Your task to perform on an android device: install app "ColorNote Notepad Notes" Image 0: 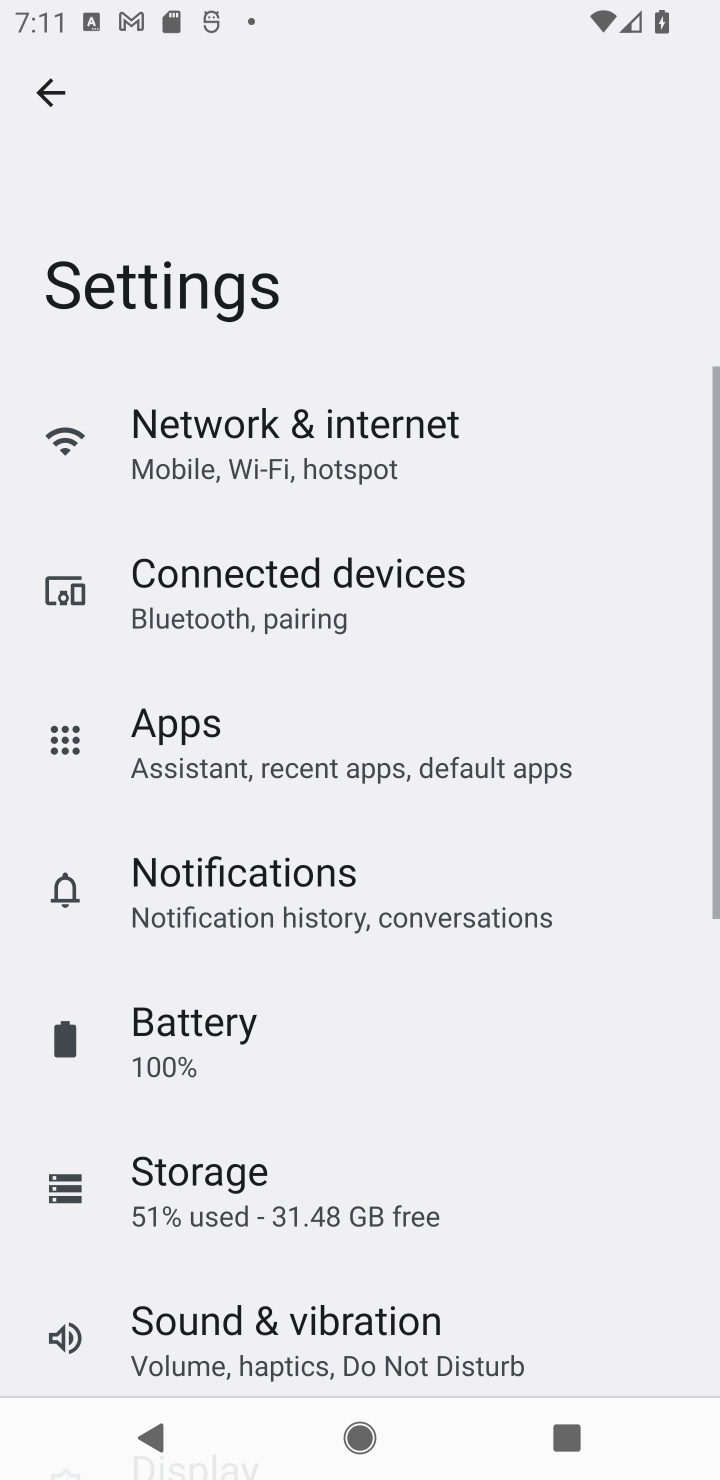
Step 0: press home button
Your task to perform on an android device: install app "ColorNote Notepad Notes" Image 1: 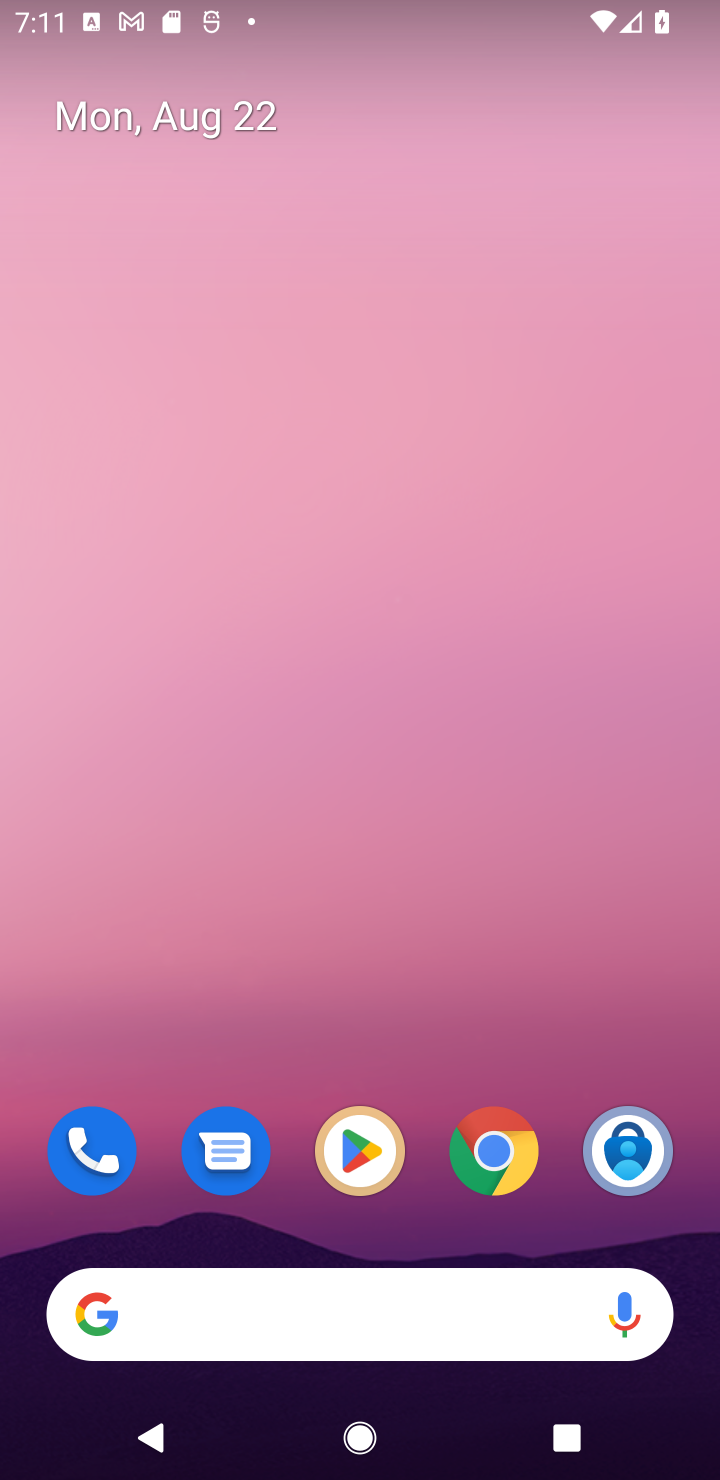
Step 1: click (364, 1147)
Your task to perform on an android device: install app "ColorNote Notepad Notes" Image 2: 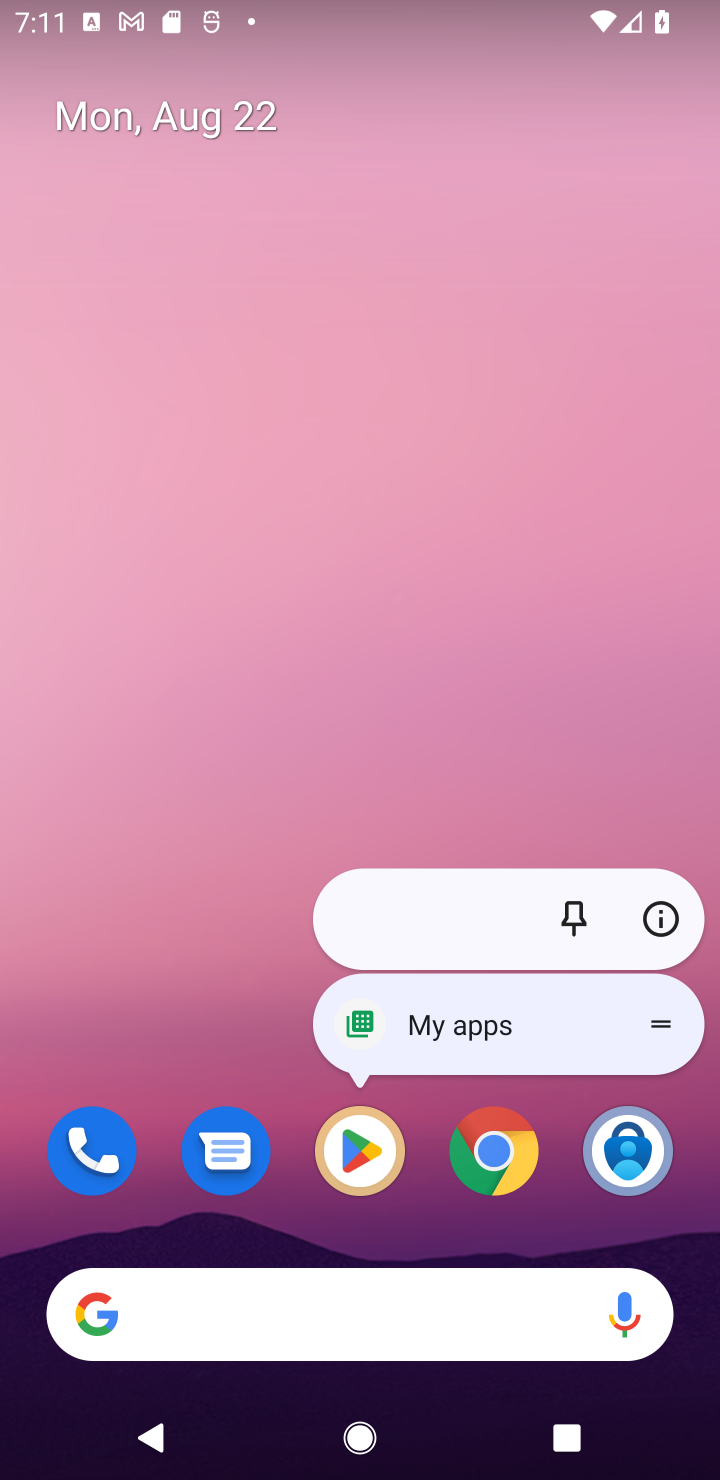
Step 2: click (353, 1149)
Your task to perform on an android device: install app "ColorNote Notepad Notes" Image 3: 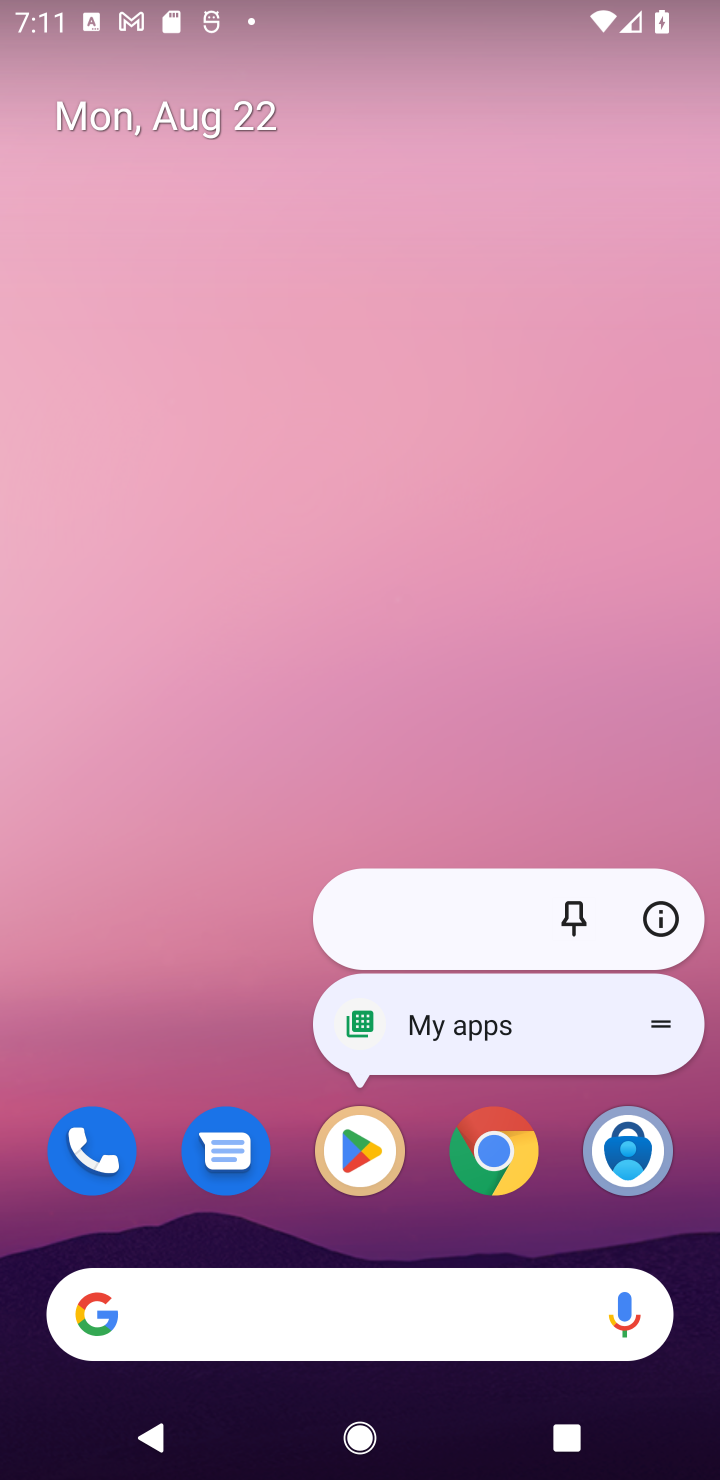
Step 3: click (351, 1166)
Your task to perform on an android device: install app "ColorNote Notepad Notes" Image 4: 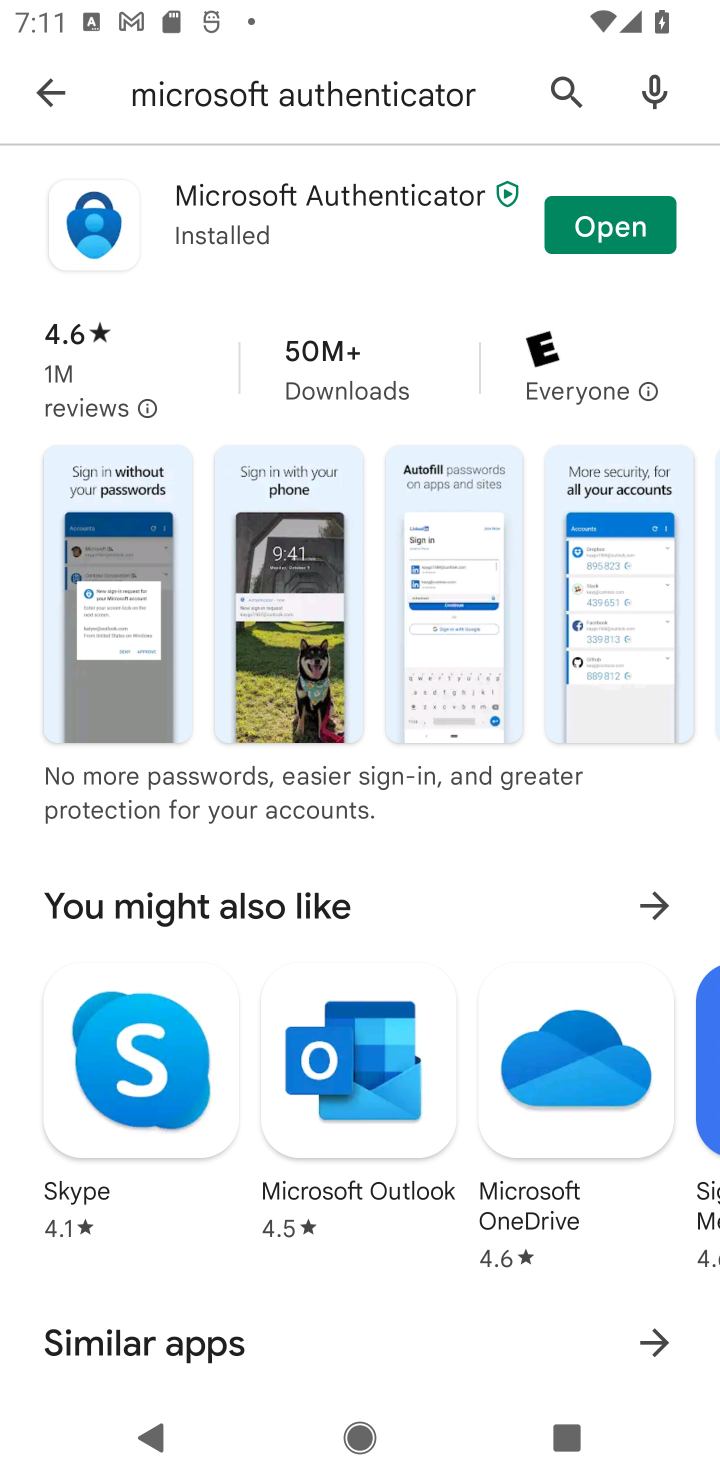
Step 4: click (556, 80)
Your task to perform on an android device: install app "ColorNote Notepad Notes" Image 5: 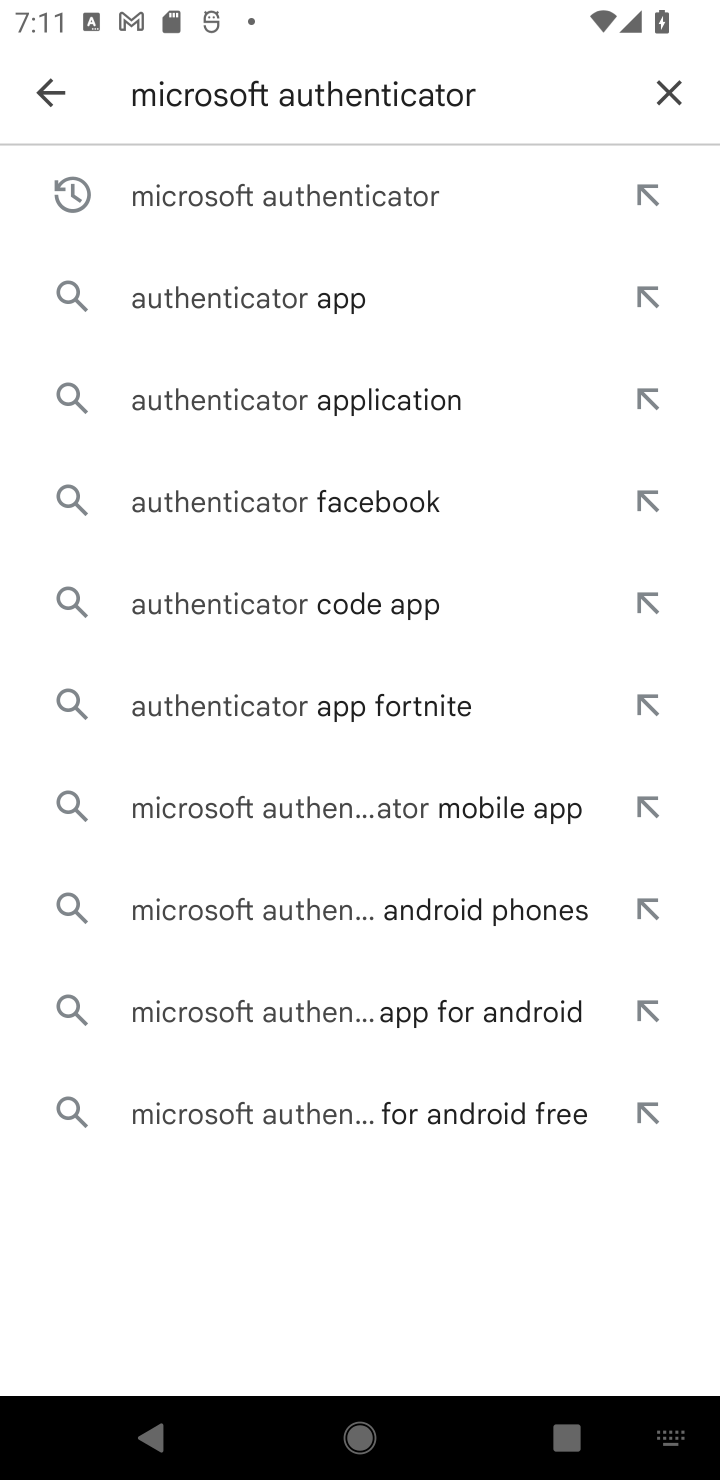
Step 5: click (663, 88)
Your task to perform on an android device: install app "ColorNote Notepad Notes" Image 6: 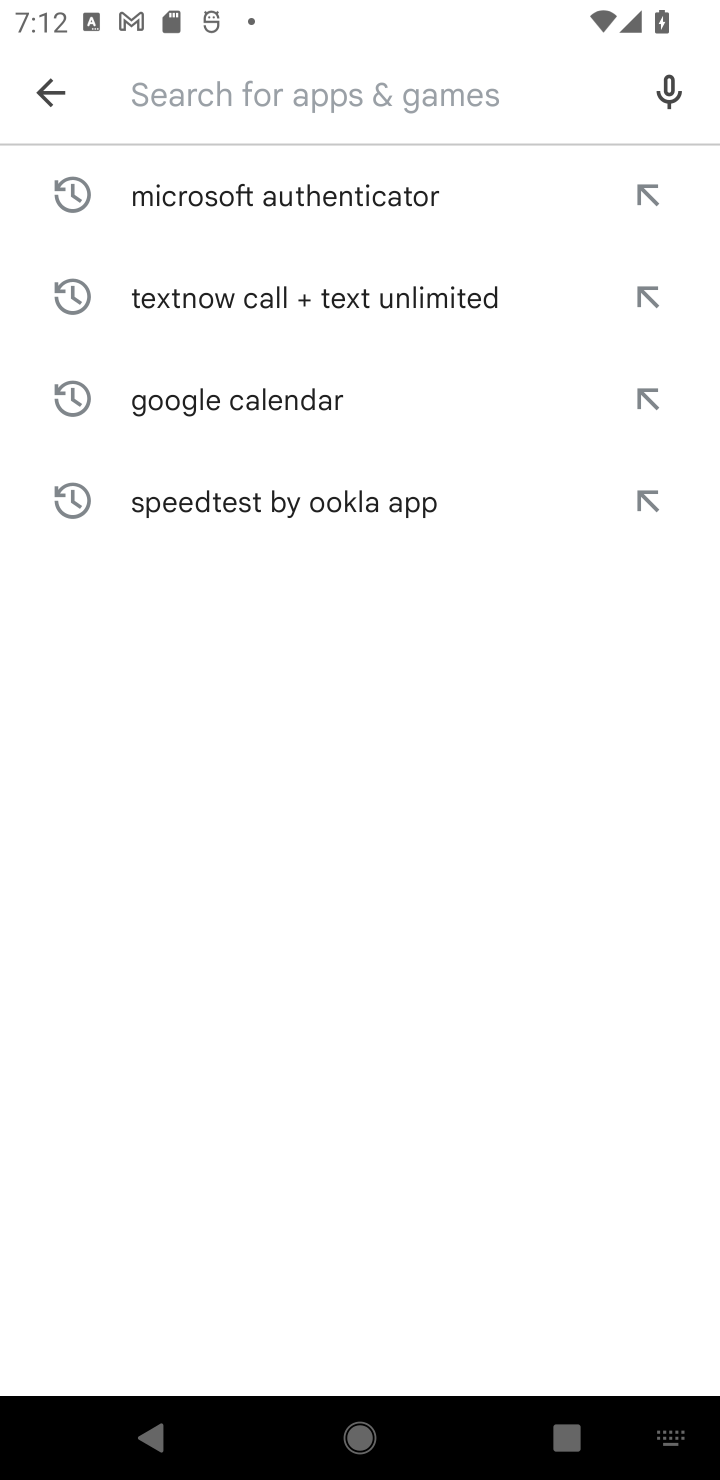
Step 6: type "ColorNote Notepad Notes"
Your task to perform on an android device: install app "ColorNote Notepad Notes" Image 7: 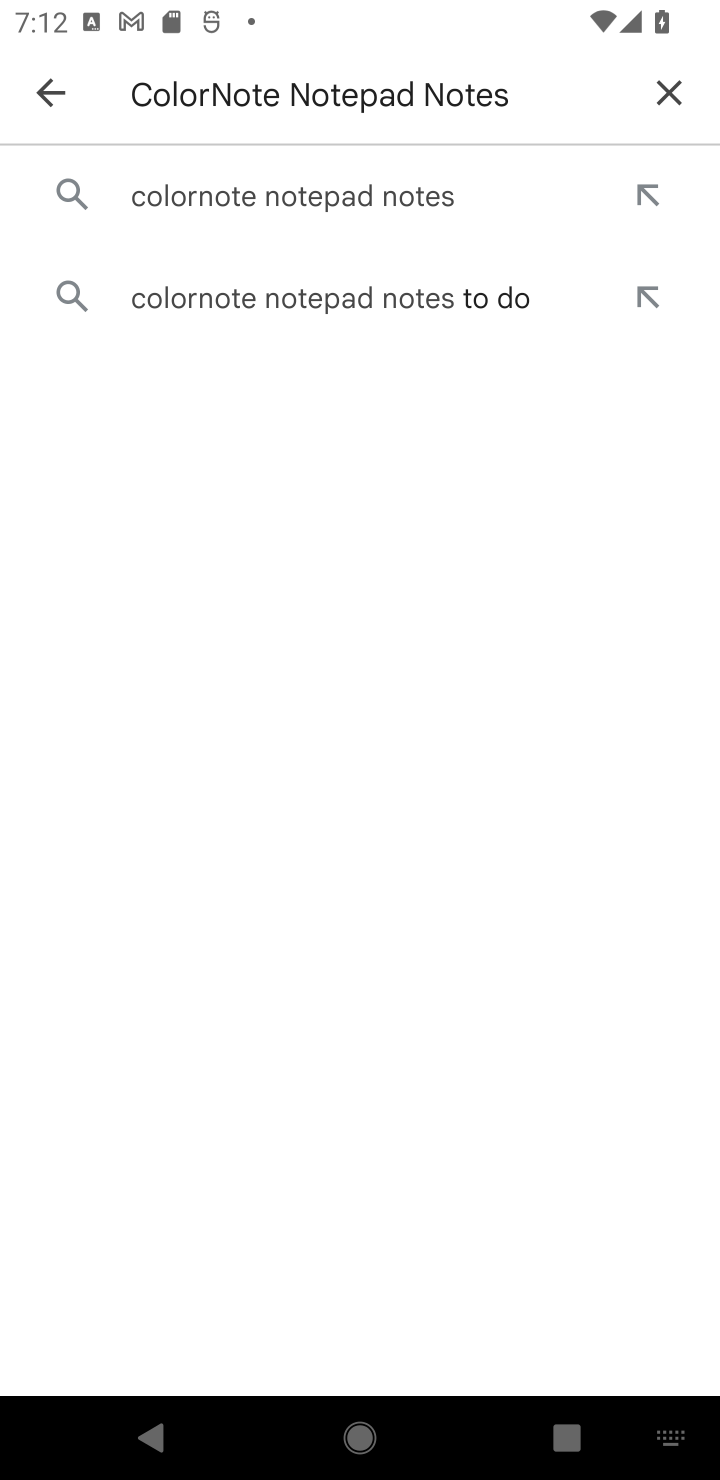
Step 7: click (372, 194)
Your task to perform on an android device: install app "ColorNote Notepad Notes" Image 8: 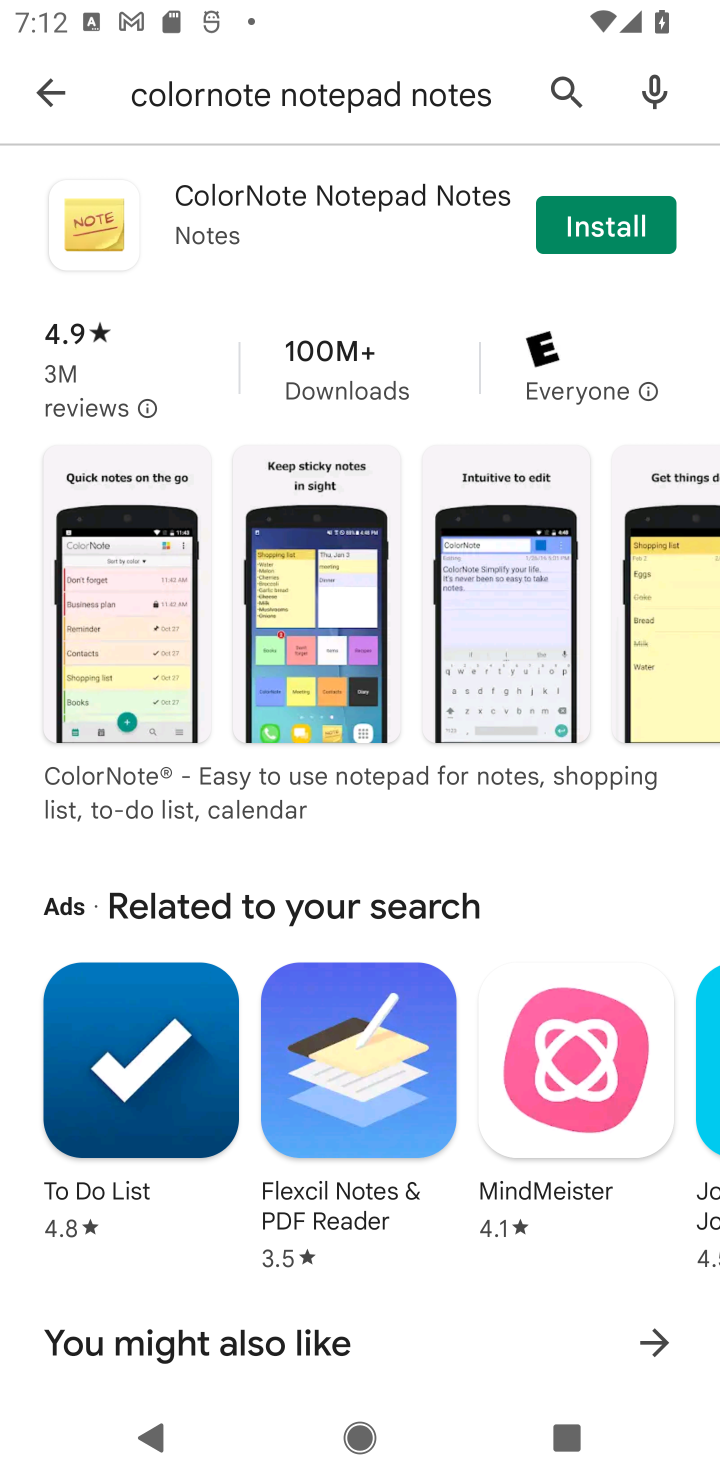
Step 8: click (639, 228)
Your task to perform on an android device: install app "ColorNote Notepad Notes" Image 9: 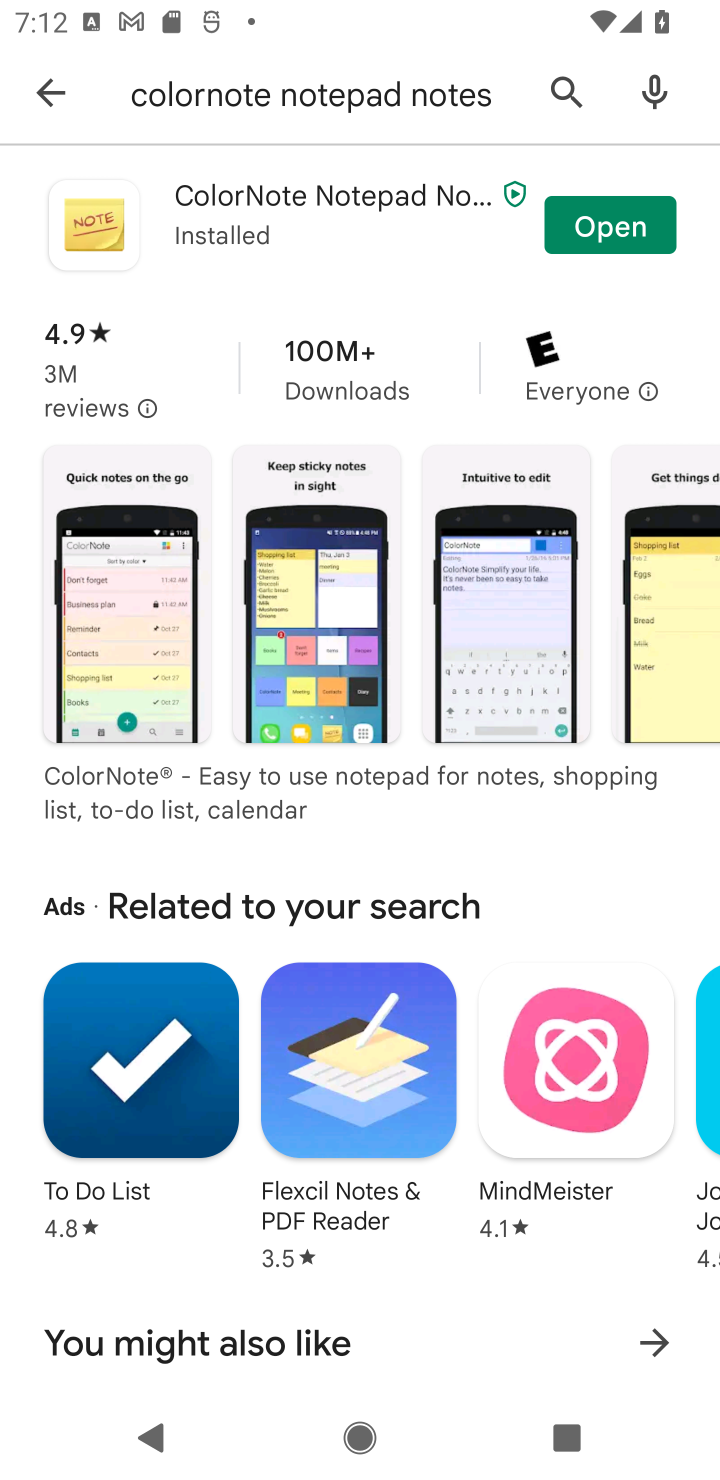
Step 9: task complete